Your task to perform on an android device: toggle pop-ups in chrome Image 0: 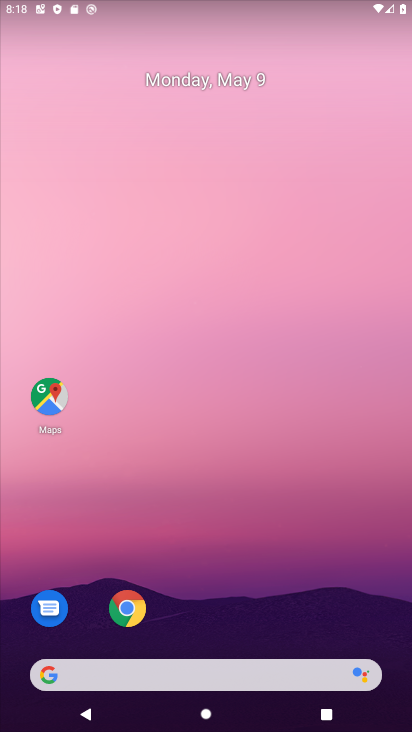
Step 0: drag from (188, 655) to (361, 76)
Your task to perform on an android device: toggle pop-ups in chrome Image 1: 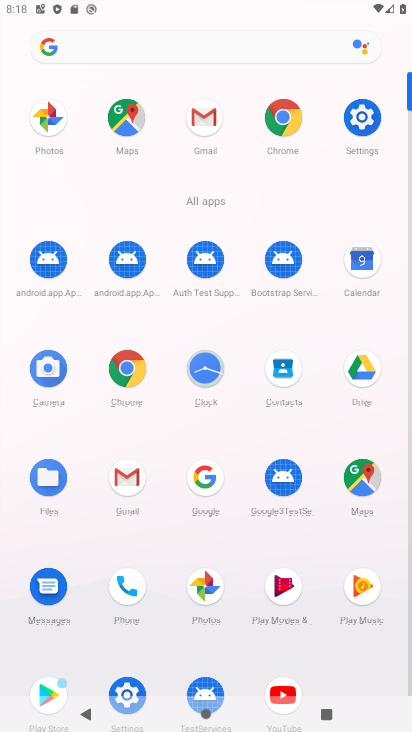
Step 1: click (131, 374)
Your task to perform on an android device: toggle pop-ups in chrome Image 2: 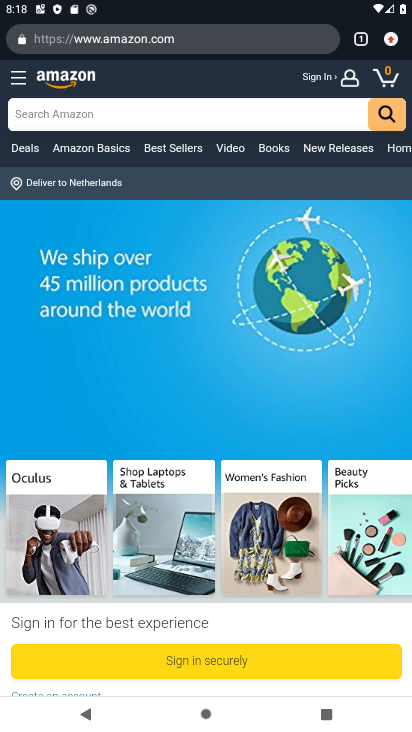
Step 2: drag from (389, 49) to (288, 513)
Your task to perform on an android device: toggle pop-ups in chrome Image 3: 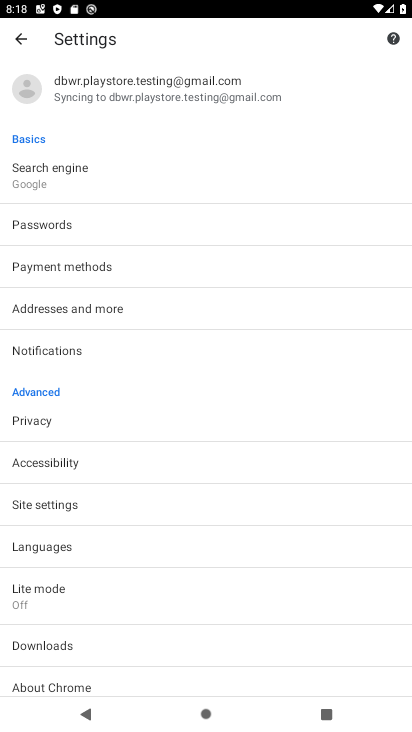
Step 3: click (74, 510)
Your task to perform on an android device: toggle pop-ups in chrome Image 4: 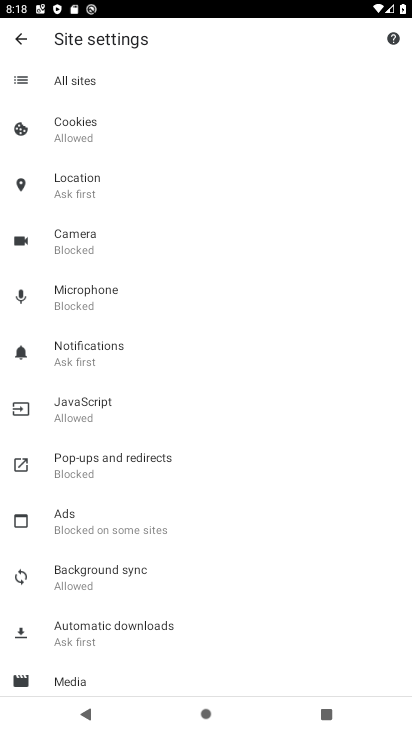
Step 4: click (159, 471)
Your task to perform on an android device: toggle pop-ups in chrome Image 5: 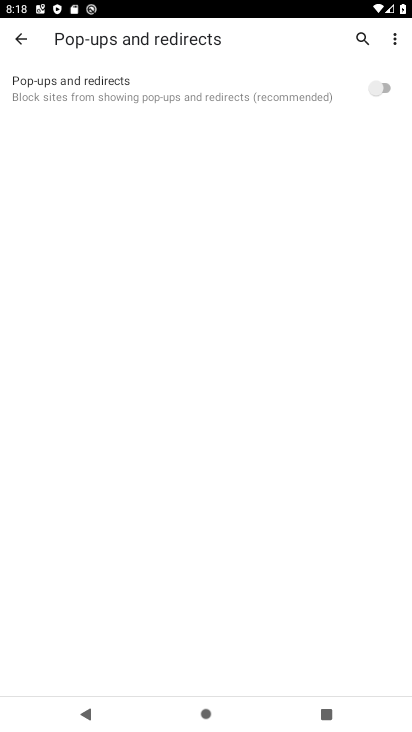
Step 5: click (400, 84)
Your task to perform on an android device: toggle pop-ups in chrome Image 6: 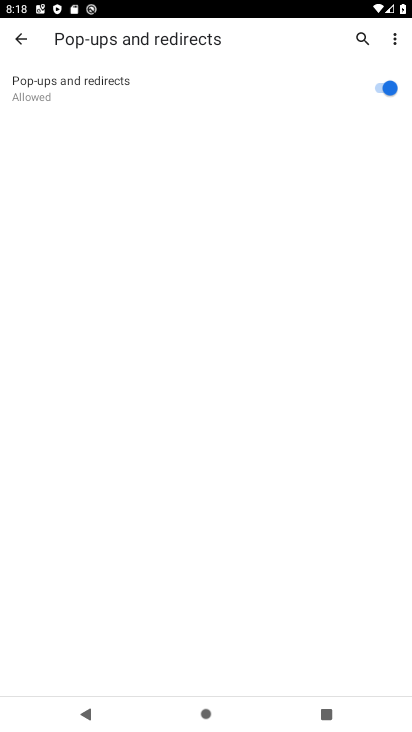
Step 6: task complete